Your task to perform on an android device: turn pop-ups on in chrome Image 0: 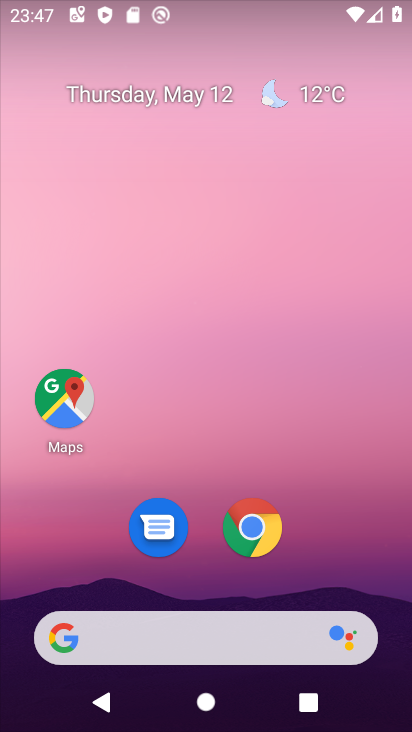
Step 0: click (254, 524)
Your task to perform on an android device: turn pop-ups on in chrome Image 1: 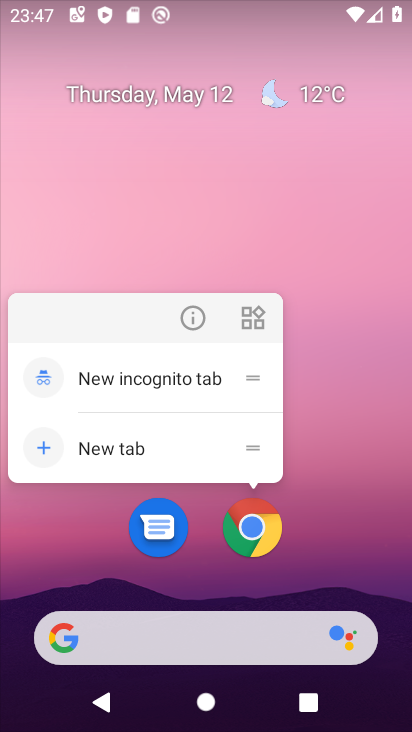
Step 1: click (256, 535)
Your task to perform on an android device: turn pop-ups on in chrome Image 2: 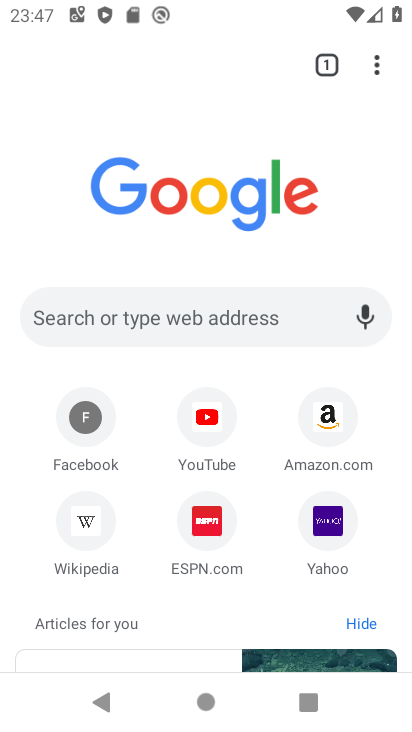
Step 2: click (369, 58)
Your task to perform on an android device: turn pop-ups on in chrome Image 3: 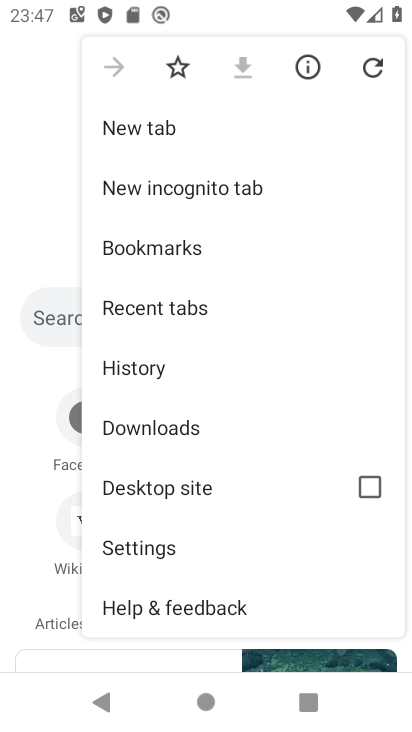
Step 3: click (190, 545)
Your task to perform on an android device: turn pop-ups on in chrome Image 4: 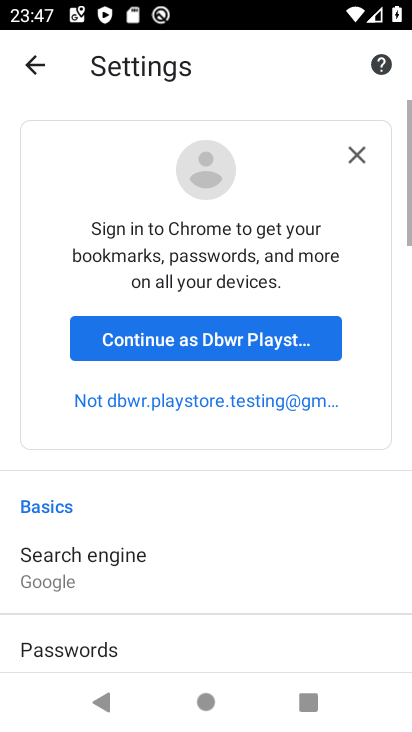
Step 4: drag from (61, 629) to (186, 131)
Your task to perform on an android device: turn pop-ups on in chrome Image 5: 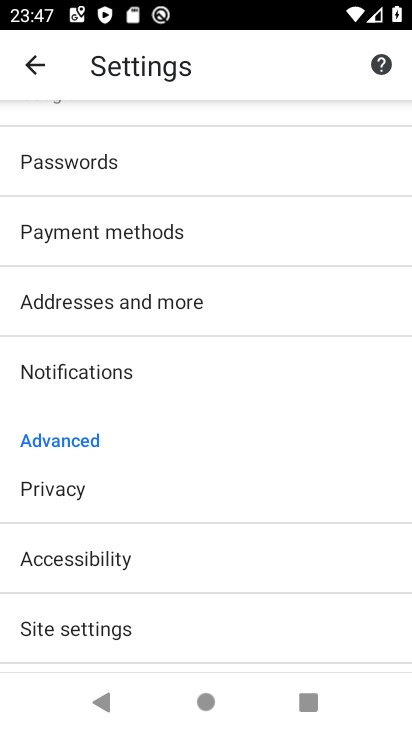
Step 5: drag from (117, 630) to (221, 264)
Your task to perform on an android device: turn pop-ups on in chrome Image 6: 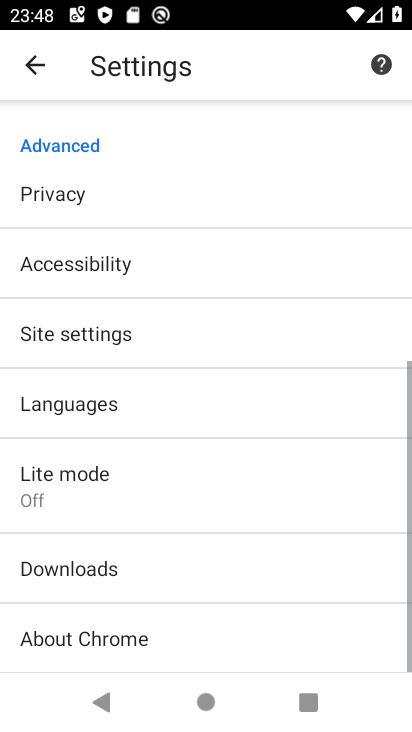
Step 6: click (114, 358)
Your task to perform on an android device: turn pop-ups on in chrome Image 7: 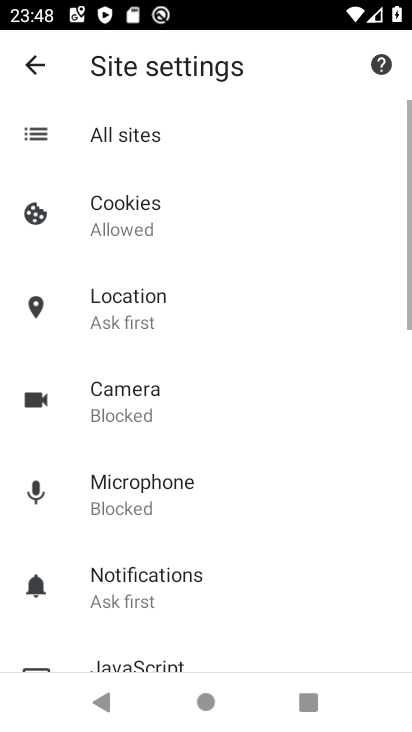
Step 7: drag from (103, 577) to (330, 198)
Your task to perform on an android device: turn pop-ups on in chrome Image 8: 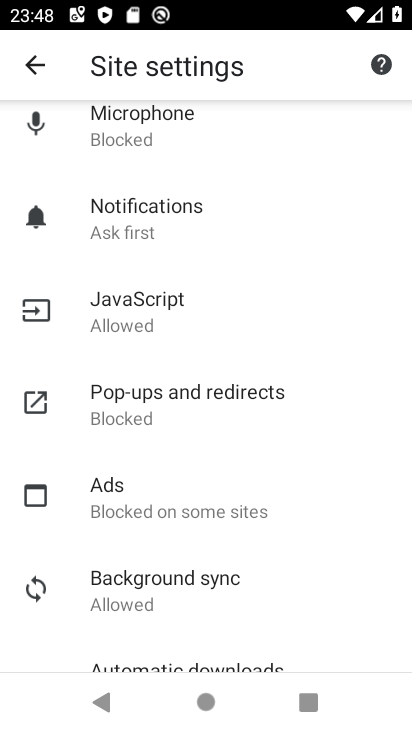
Step 8: click (223, 388)
Your task to perform on an android device: turn pop-ups on in chrome Image 9: 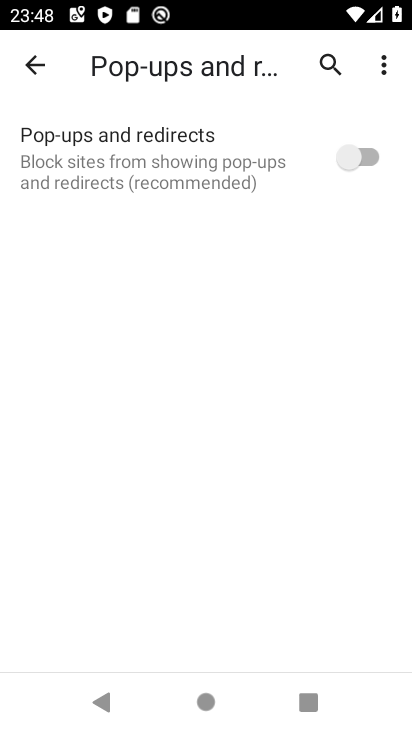
Step 9: click (356, 160)
Your task to perform on an android device: turn pop-ups on in chrome Image 10: 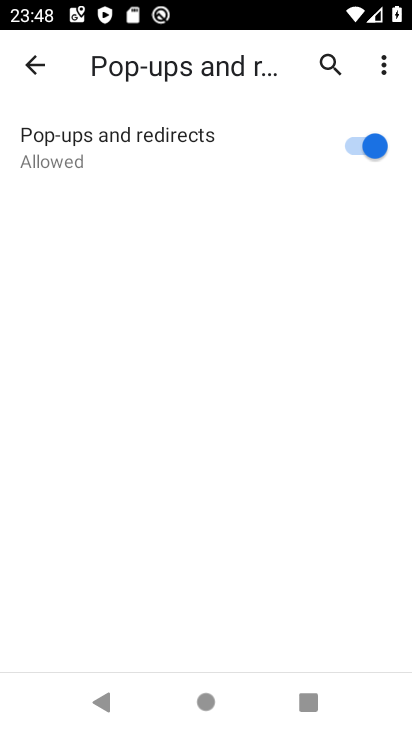
Step 10: task complete